Your task to perform on an android device: Go to Yahoo.com Image 0: 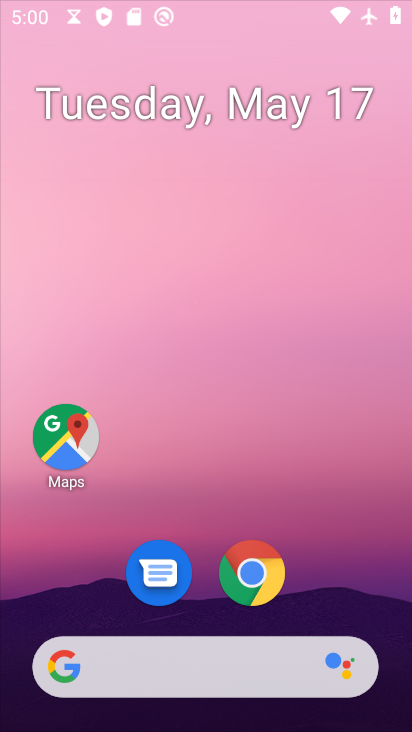
Step 0: press back button
Your task to perform on an android device: Go to Yahoo.com Image 1: 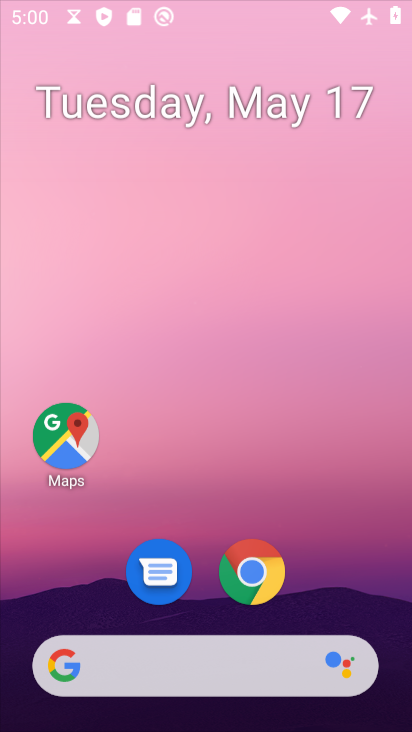
Step 1: drag from (296, 658) to (166, 144)
Your task to perform on an android device: Go to Yahoo.com Image 2: 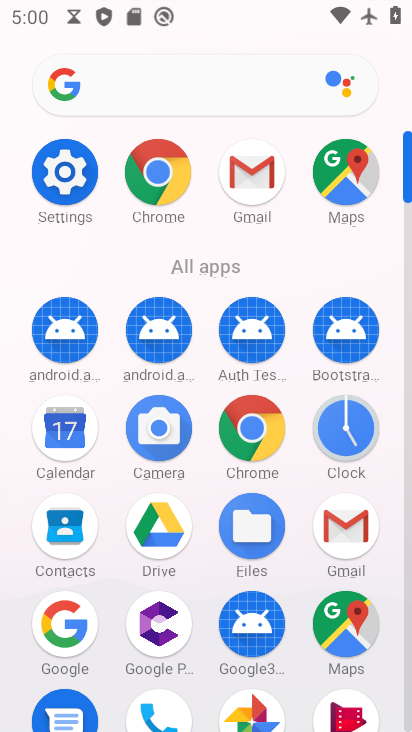
Step 2: click (145, 175)
Your task to perform on an android device: Go to Yahoo.com Image 3: 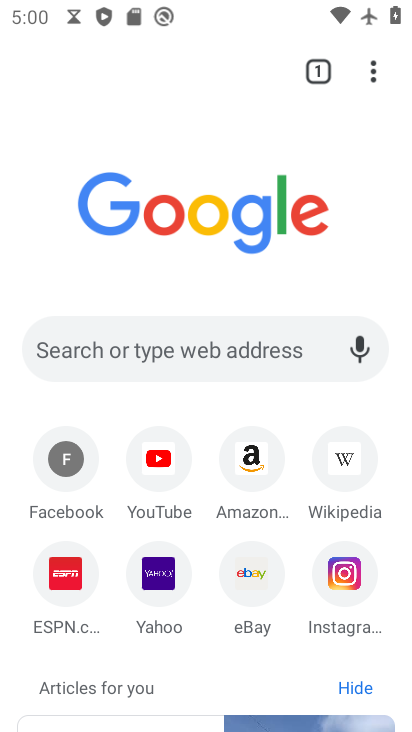
Step 3: click (165, 581)
Your task to perform on an android device: Go to Yahoo.com Image 4: 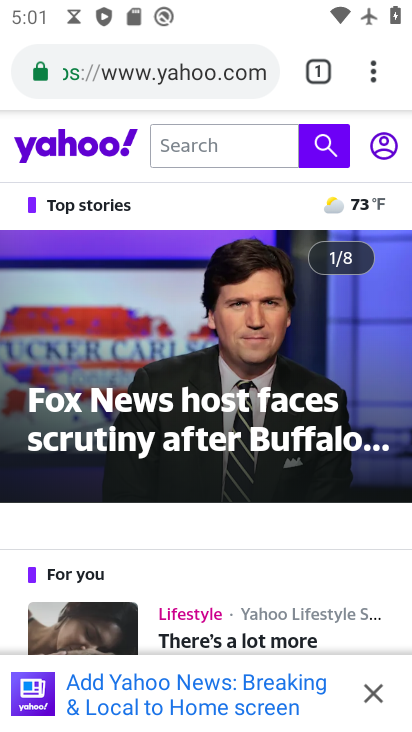
Step 4: task complete